Your task to perform on an android device: Open maps Image 0: 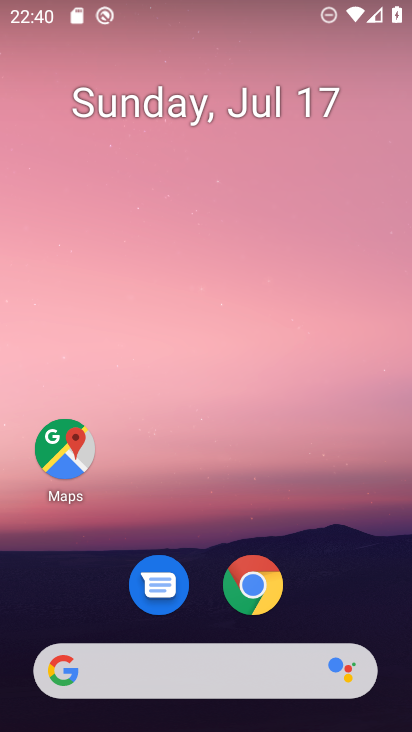
Step 0: click (63, 454)
Your task to perform on an android device: Open maps Image 1: 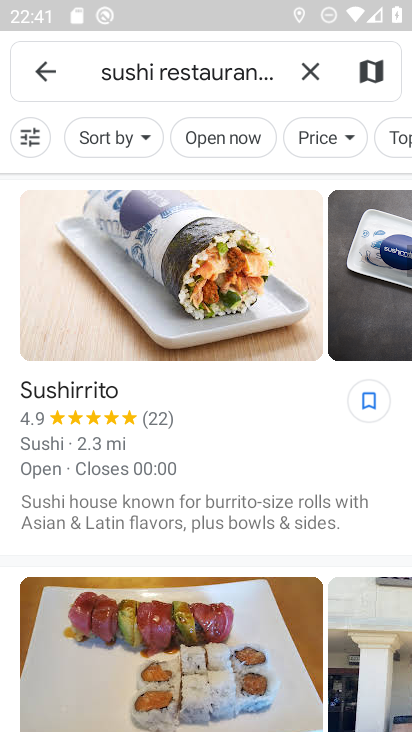
Step 1: click (48, 67)
Your task to perform on an android device: Open maps Image 2: 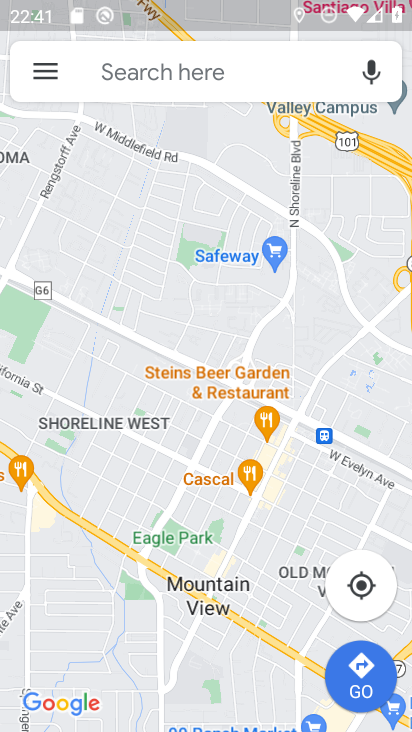
Step 2: task complete